Your task to perform on an android device: Go to CNN.com Image 0: 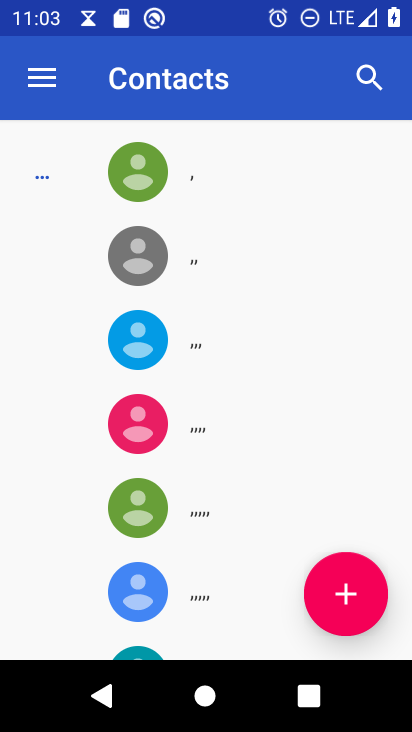
Step 0: press home button
Your task to perform on an android device: Go to CNN.com Image 1: 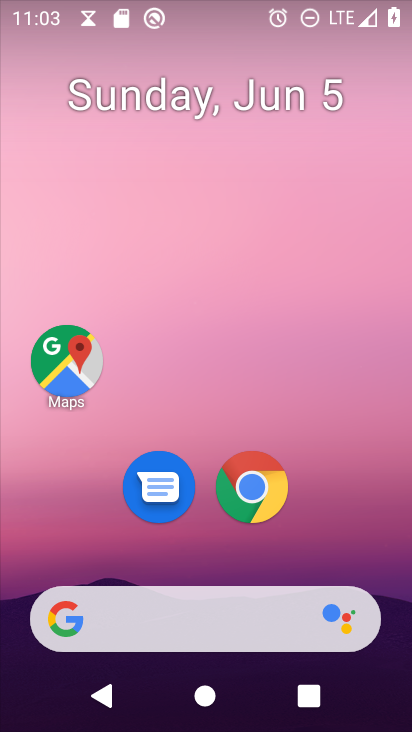
Step 1: click (235, 470)
Your task to perform on an android device: Go to CNN.com Image 2: 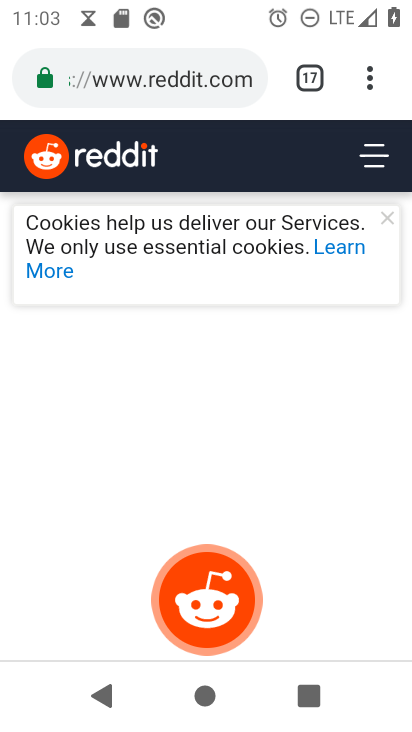
Step 2: click (368, 65)
Your task to perform on an android device: Go to CNN.com Image 3: 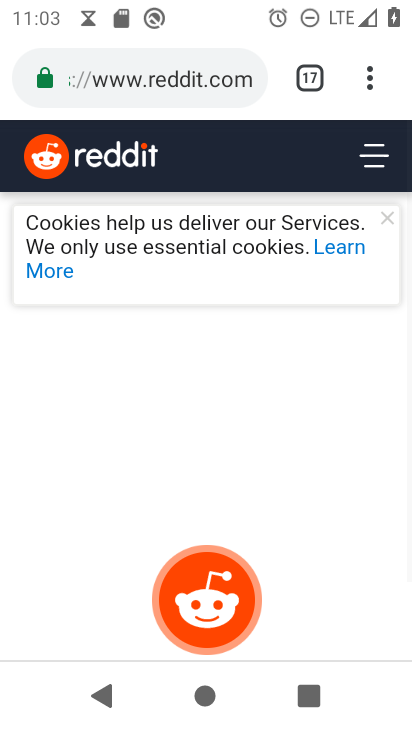
Step 3: click (367, 76)
Your task to perform on an android device: Go to CNN.com Image 4: 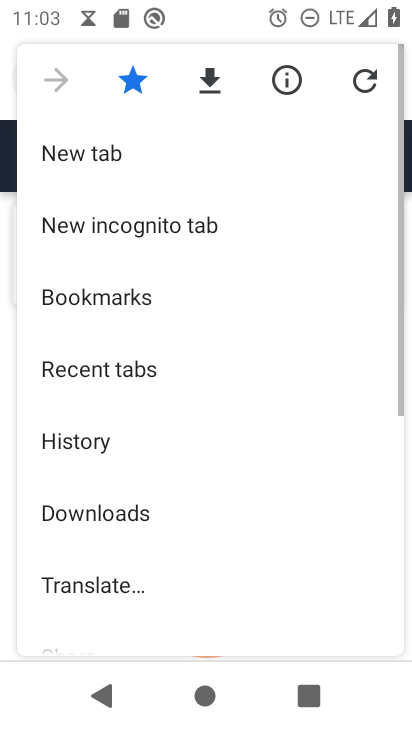
Step 4: click (160, 161)
Your task to perform on an android device: Go to CNN.com Image 5: 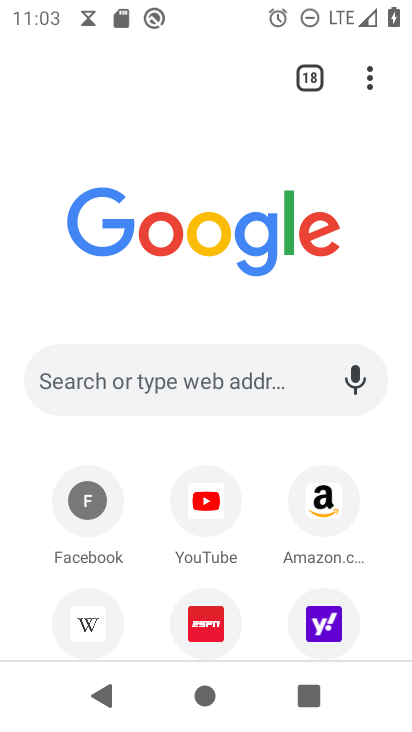
Step 5: click (194, 355)
Your task to perform on an android device: Go to CNN.com Image 6: 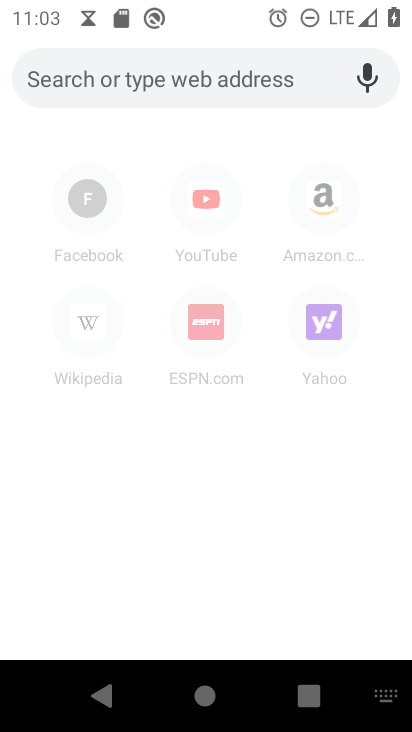
Step 6: type "CNN.com"
Your task to perform on an android device: Go to CNN.com Image 7: 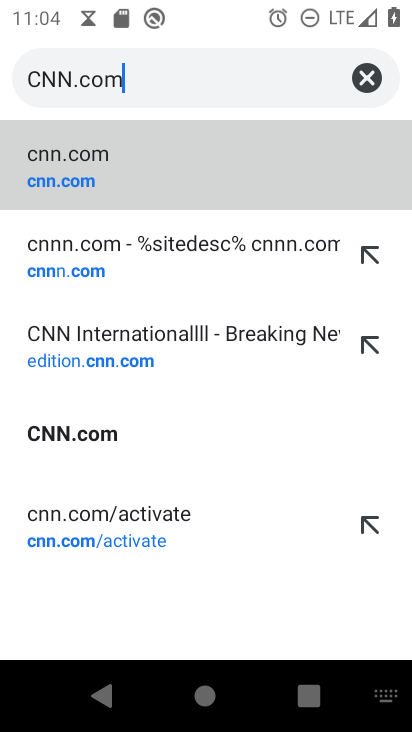
Step 7: click (211, 153)
Your task to perform on an android device: Go to CNN.com Image 8: 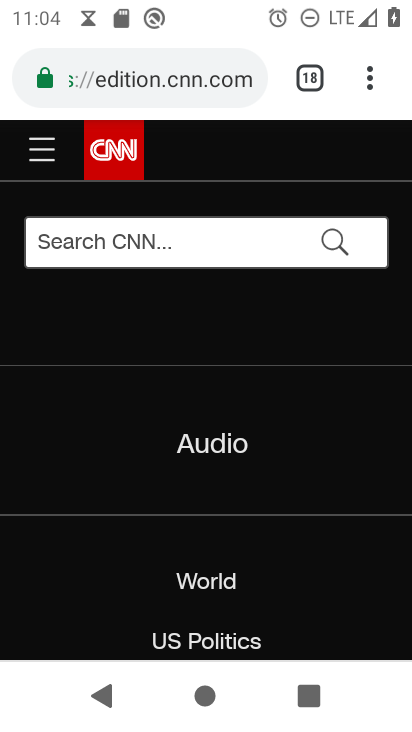
Step 8: task complete